Your task to perform on an android device: uninstall "Google News" Image 0: 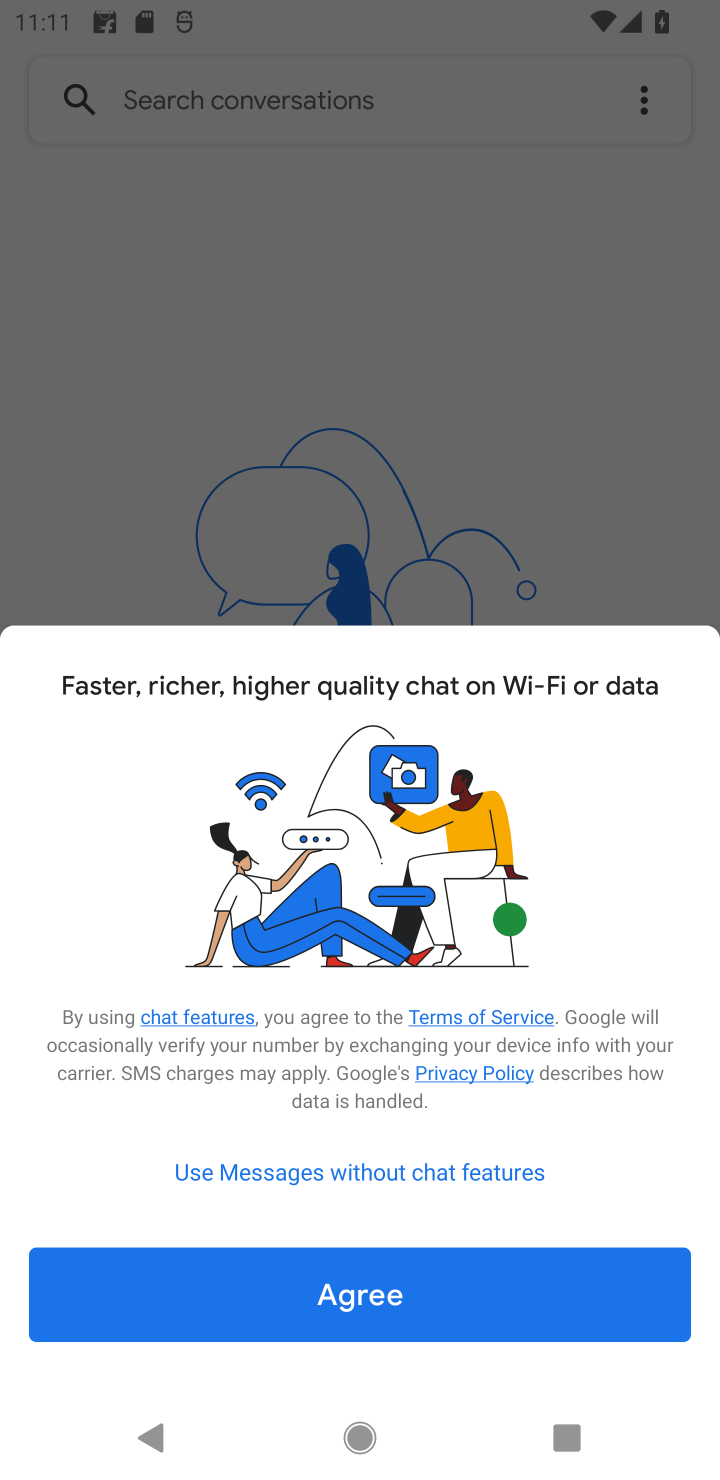
Step 0: press back button
Your task to perform on an android device: uninstall "Google News" Image 1: 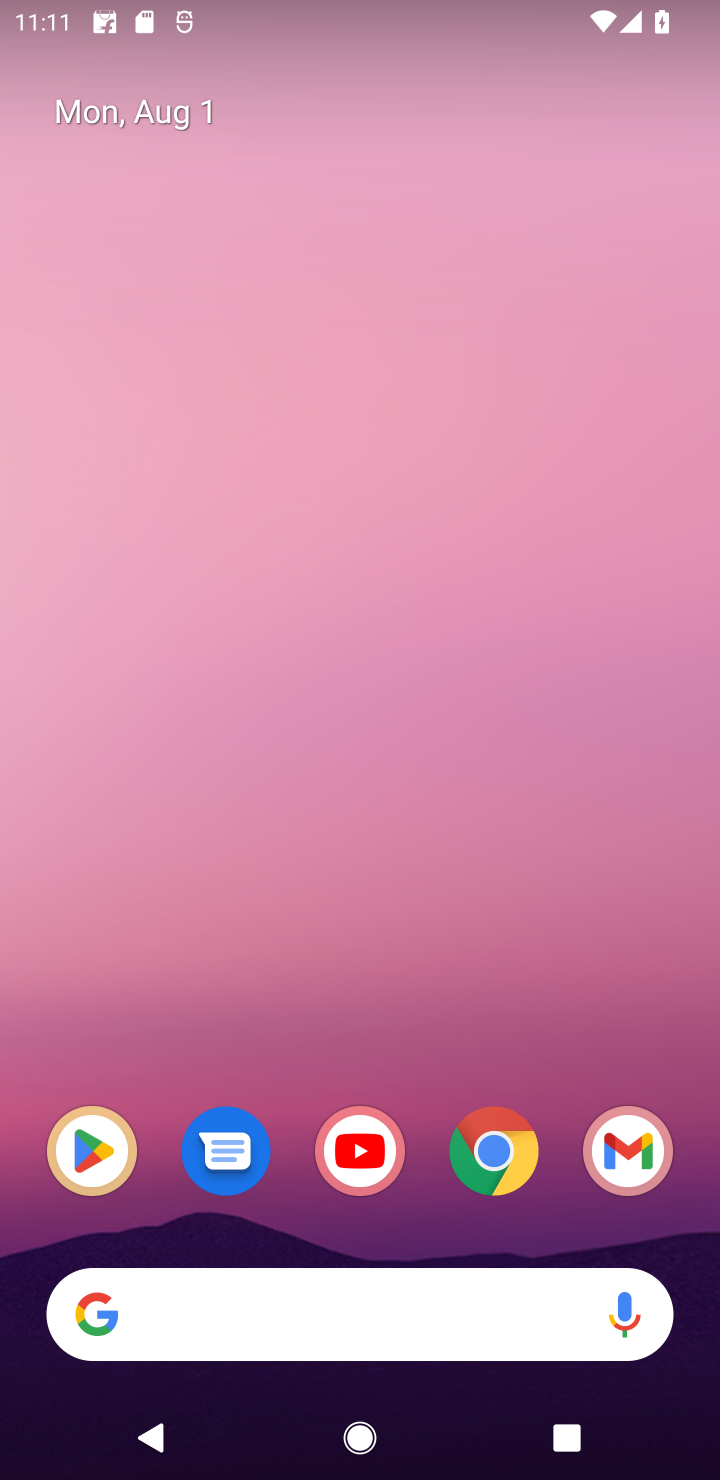
Step 1: press back button
Your task to perform on an android device: uninstall "Google News" Image 2: 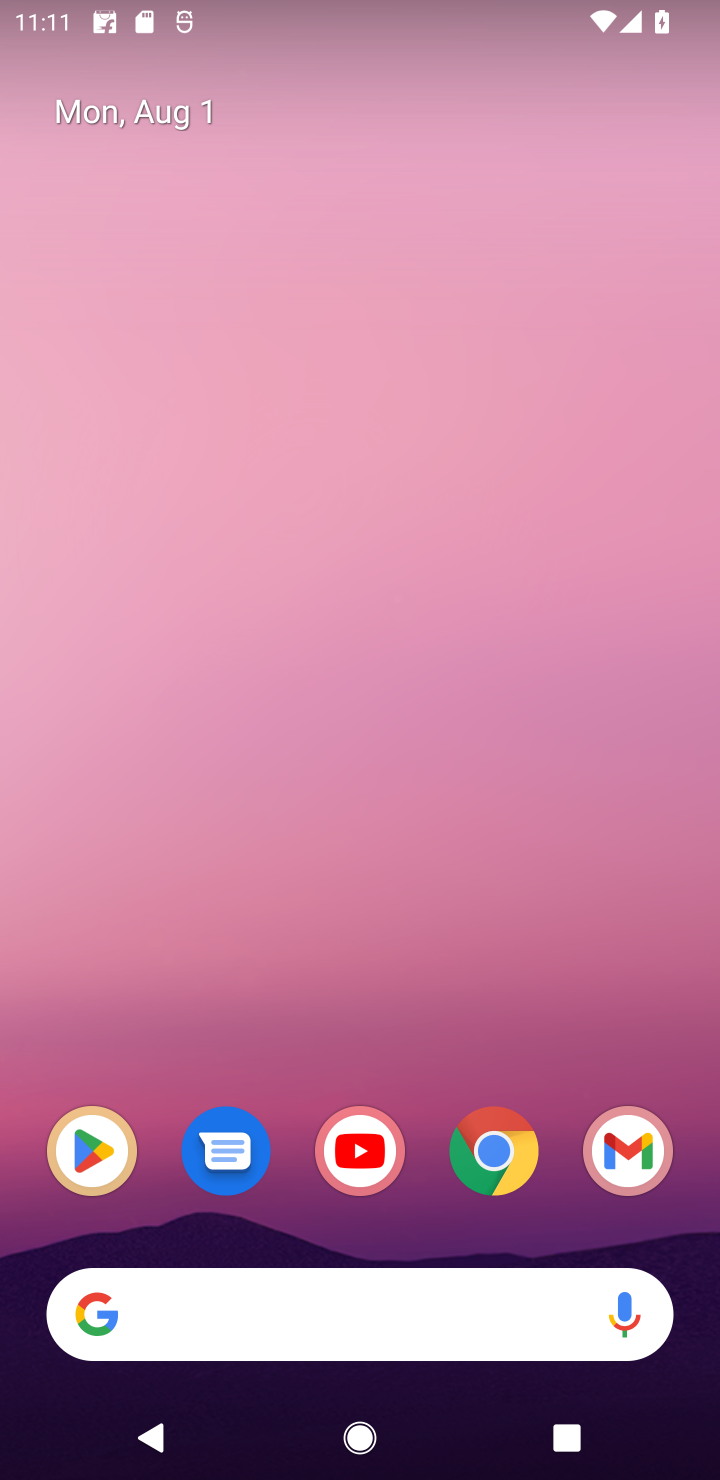
Step 2: click (83, 1163)
Your task to perform on an android device: uninstall "Google News" Image 3: 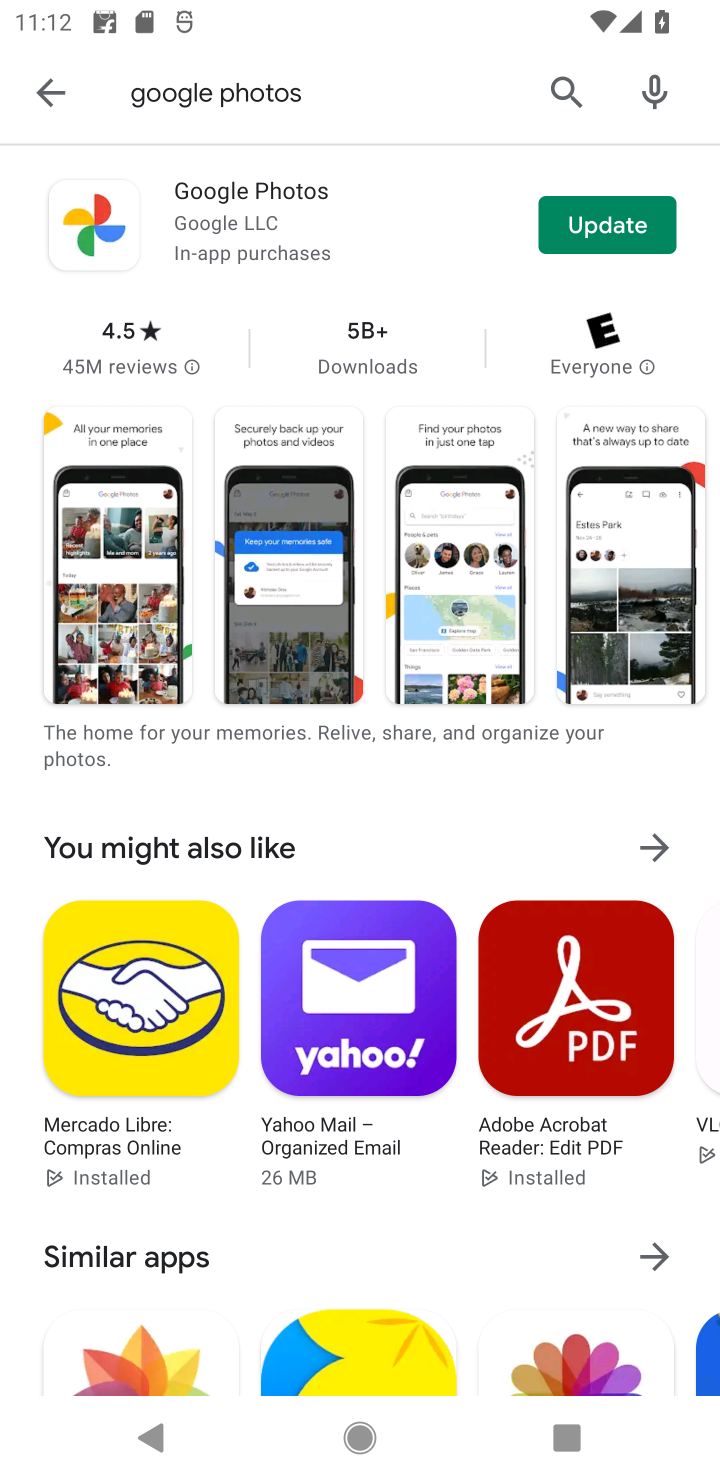
Step 3: click (550, 102)
Your task to perform on an android device: uninstall "Google News" Image 4: 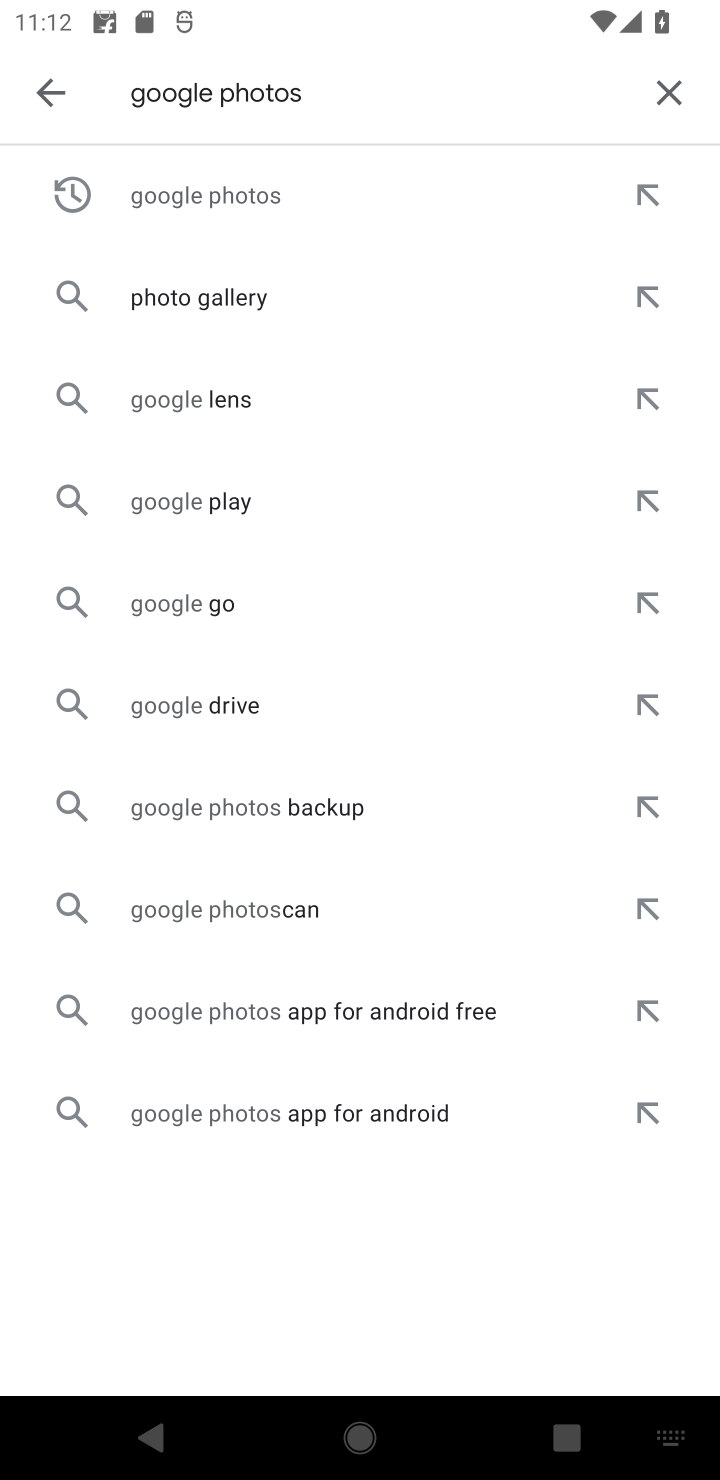
Step 4: click (658, 82)
Your task to perform on an android device: uninstall "Google News" Image 5: 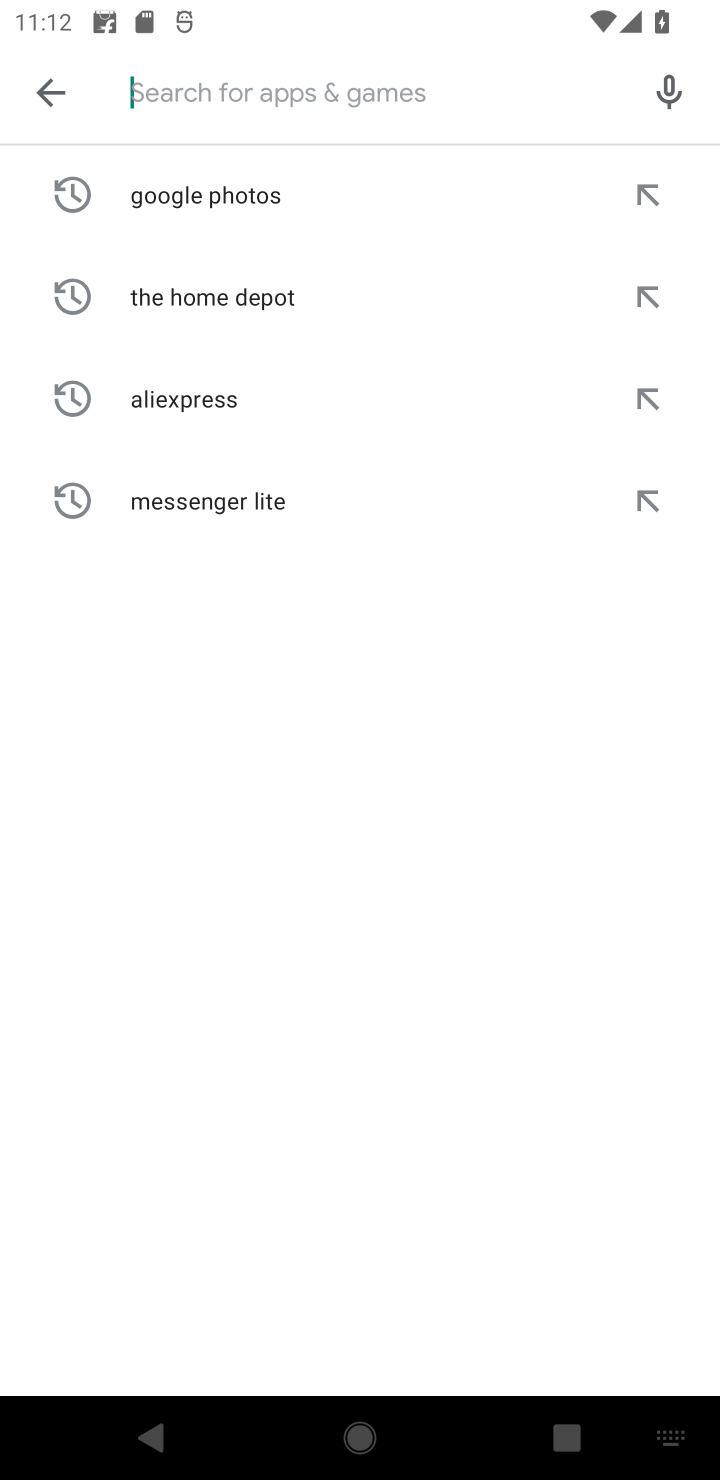
Step 5: type "Google News"
Your task to perform on an android device: uninstall "Google News" Image 6: 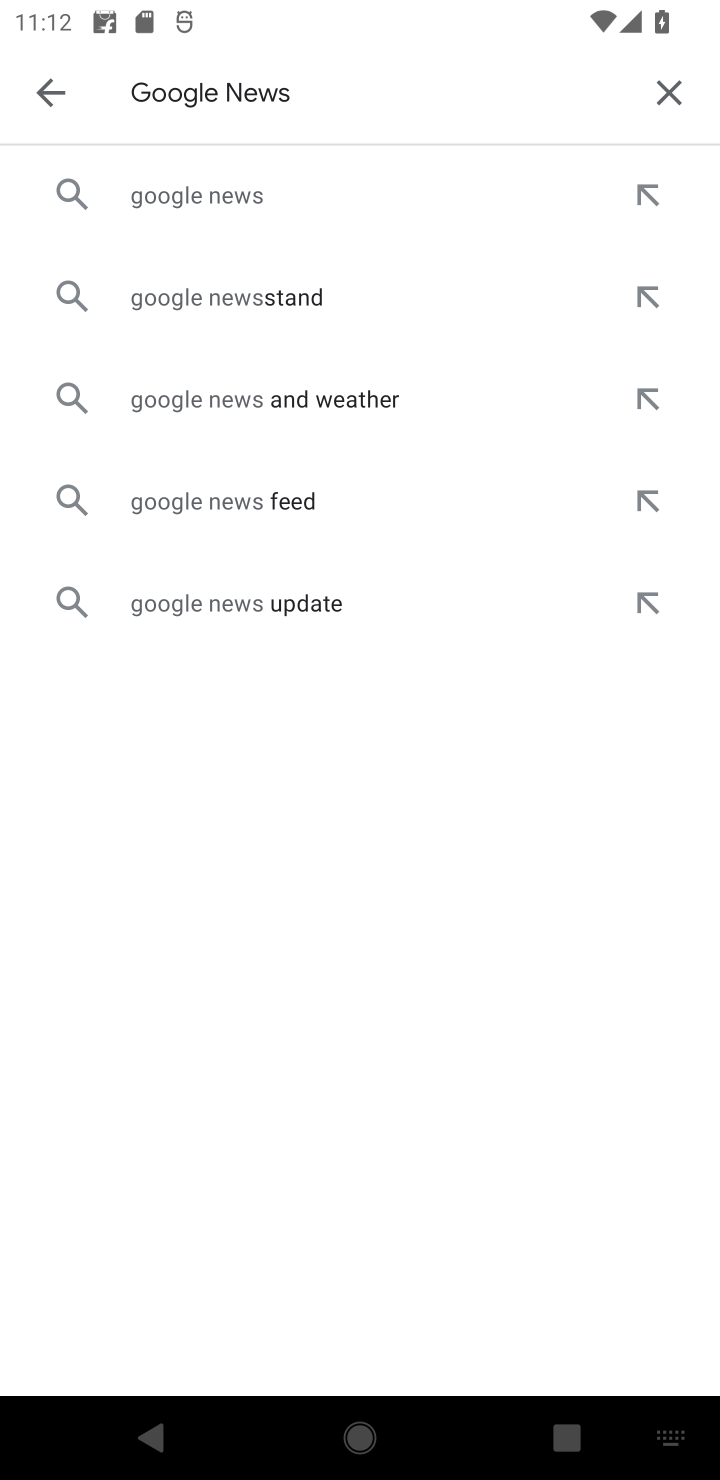
Step 6: click (281, 189)
Your task to perform on an android device: uninstall "Google News" Image 7: 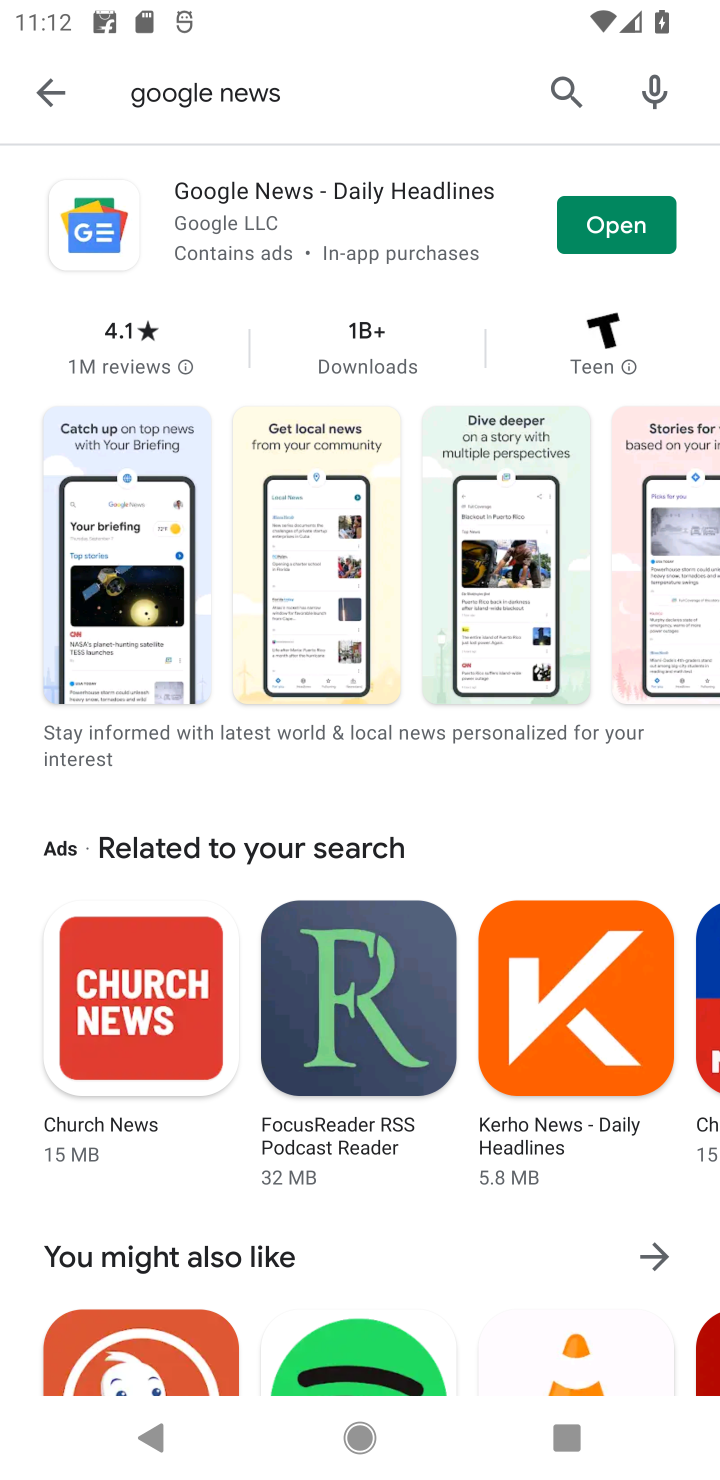
Step 7: task complete